Your task to perform on an android device: When is my next meeting? Image 0: 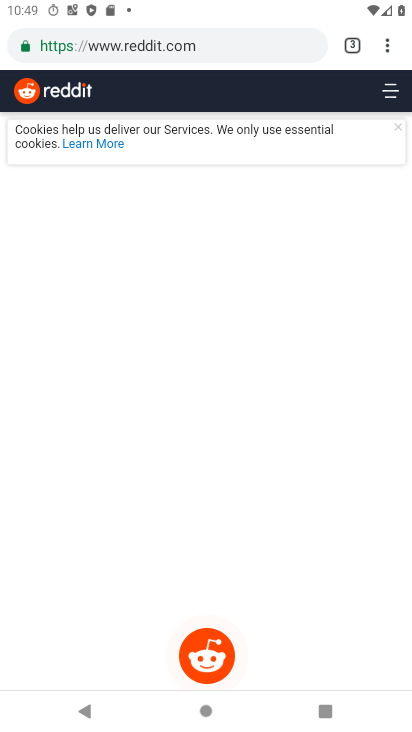
Step 0: press home button
Your task to perform on an android device: When is my next meeting? Image 1: 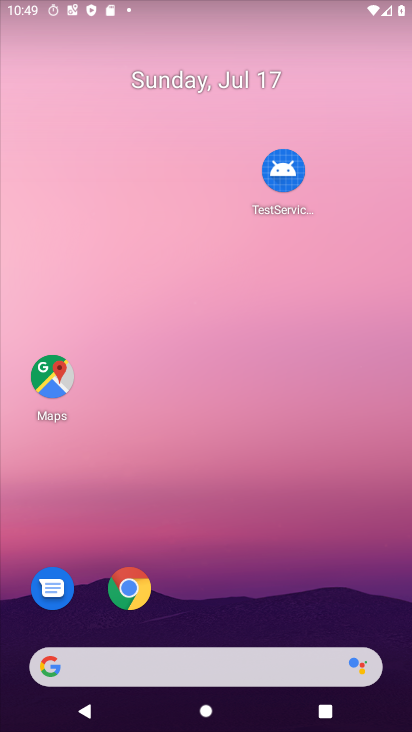
Step 1: drag from (258, 631) to (277, 164)
Your task to perform on an android device: When is my next meeting? Image 2: 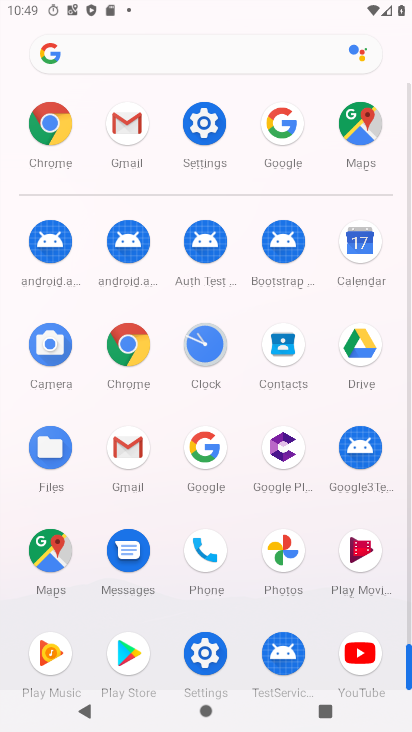
Step 2: click (363, 260)
Your task to perform on an android device: When is my next meeting? Image 3: 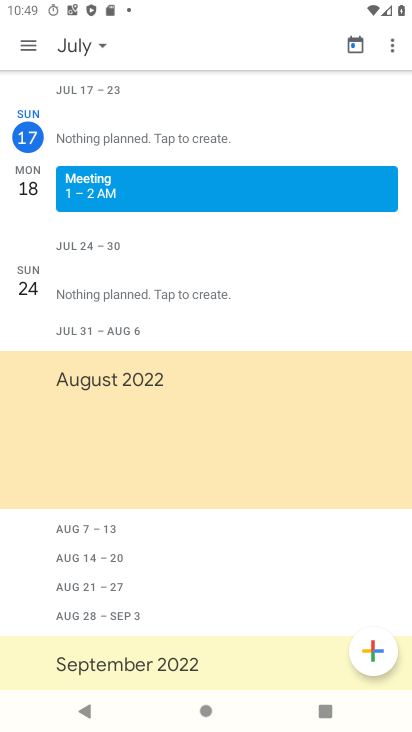
Step 3: click (30, 56)
Your task to perform on an android device: When is my next meeting? Image 4: 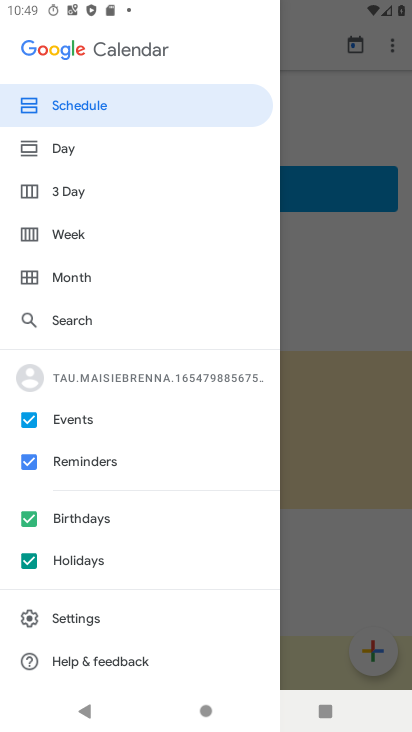
Step 4: click (27, 568)
Your task to perform on an android device: When is my next meeting? Image 5: 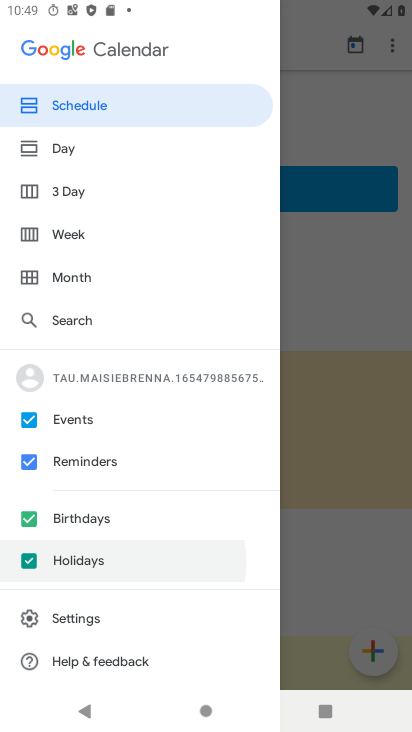
Step 5: click (33, 521)
Your task to perform on an android device: When is my next meeting? Image 6: 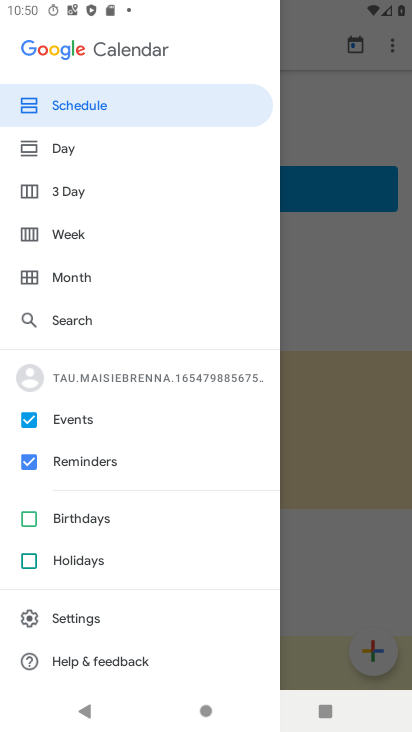
Step 6: click (335, 426)
Your task to perform on an android device: When is my next meeting? Image 7: 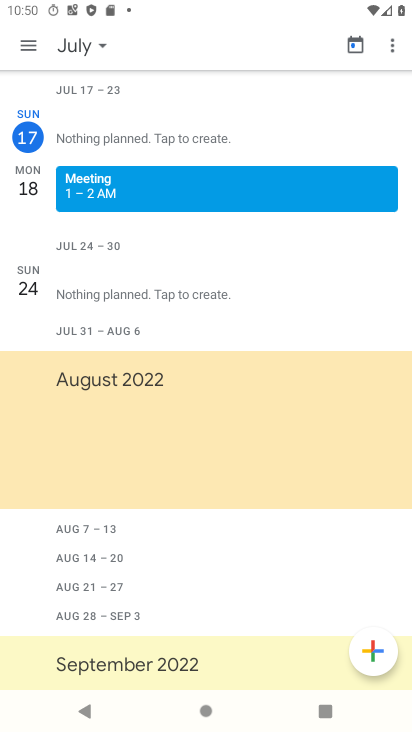
Step 7: task complete